Your task to perform on an android device: see sites visited before in the chrome app Image 0: 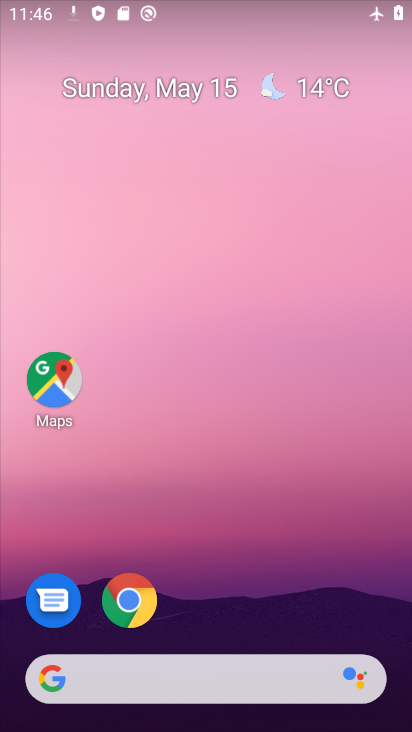
Step 0: drag from (235, 566) to (248, 38)
Your task to perform on an android device: see sites visited before in the chrome app Image 1: 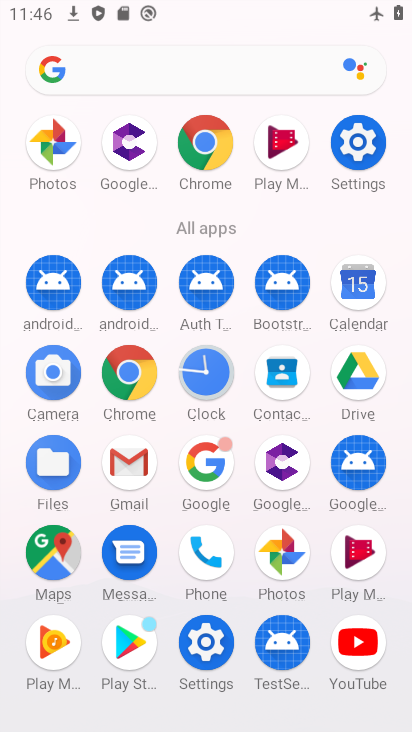
Step 1: click (208, 141)
Your task to perform on an android device: see sites visited before in the chrome app Image 2: 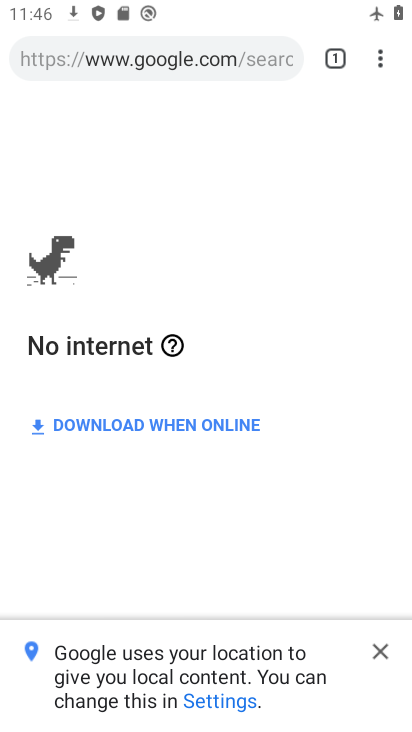
Step 2: task complete